Your task to perform on an android device: delete a single message in the gmail app Image 0: 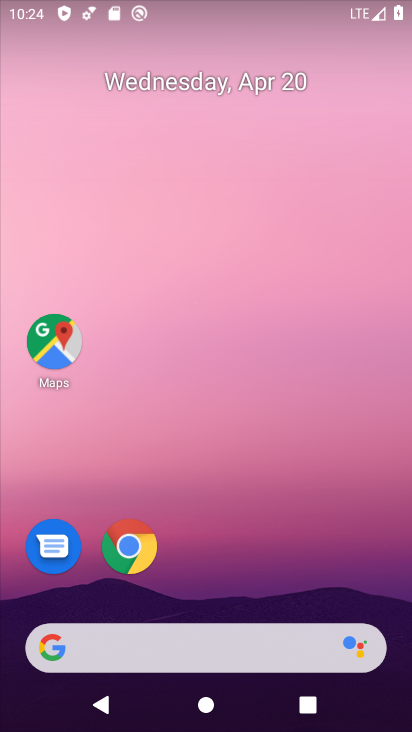
Step 0: drag from (197, 556) to (106, 109)
Your task to perform on an android device: delete a single message in the gmail app Image 1: 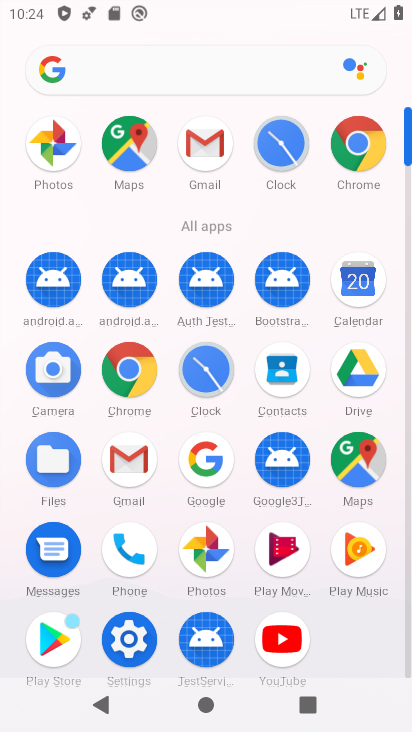
Step 1: click (206, 150)
Your task to perform on an android device: delete a single message in the gmail app Image 2: 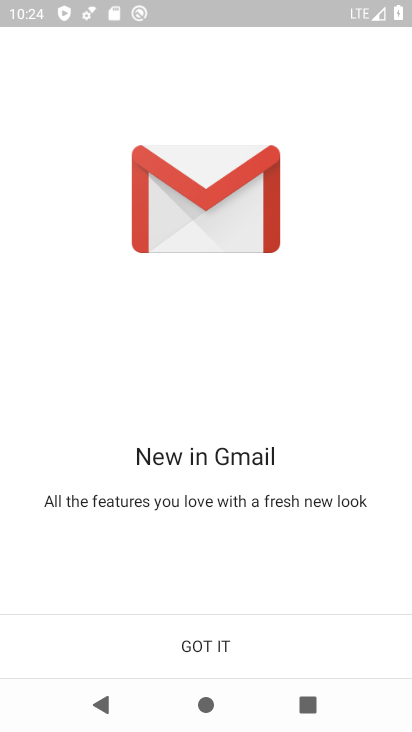
Step 2: click (204, 641)
Your task to perform on an android device: delete a single message in the gmail app Image 3: 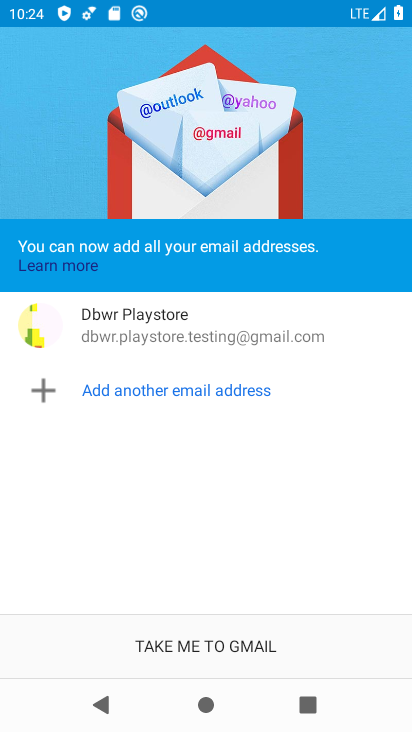
Step 3: click (202, 647)
Your task to perform on an android device: delete a single message in the gmail app Image 4: 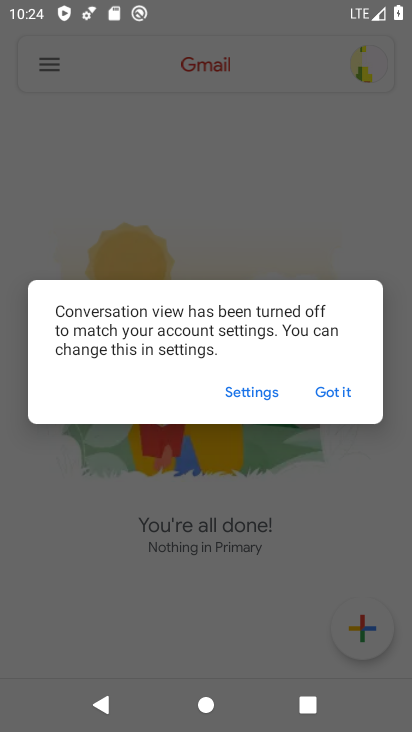
Step 4: click (327, 398)
Your task to perform on an android device: delete a single message in the gmail app Image 5: 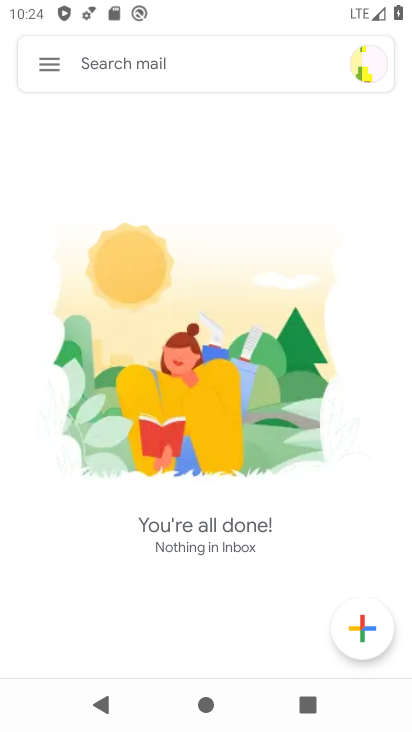
Step 5: click (47, 69)
Your task to perform on an android device: delete a single message in the gmail app Image 6: 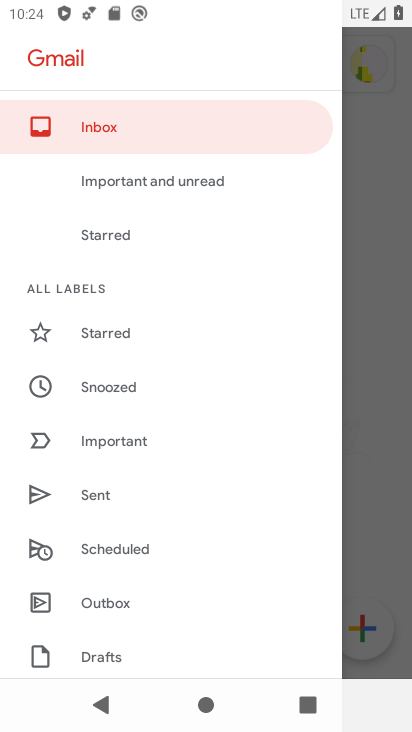
Step 6: drag from (155, 513) to (106, 156)
Your task to perform on an android device: delete a single message in the gmail app Image 7: 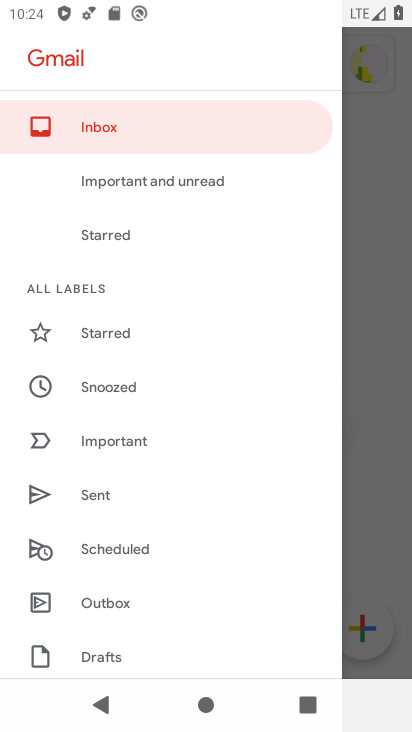
Step 7: drag from (138, 624) to (159, 233)
Your task to perform on an android device: delete a single message in the gmail app Image 8: 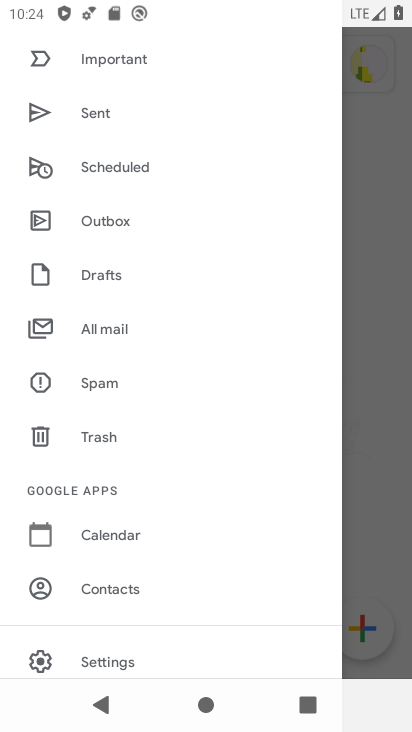
Step 8: drag from (274, 135) to (262, 620)
Your task to perform on an android device: delete a single message in the gmail app Image 9: 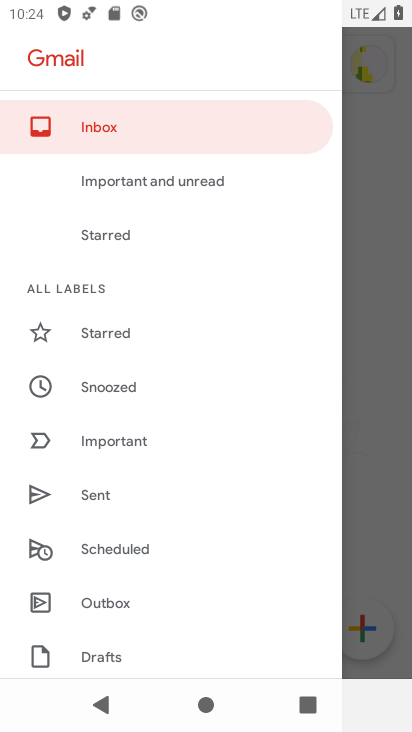
Step 9: click (348, 156)
Your task to perform on an android device: delete a single message in the gmail app Image 10: 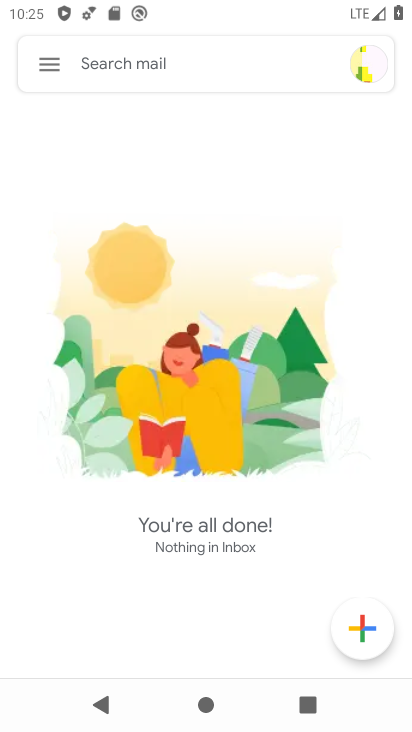
Step 10: task complete